Your task to perform on an android device: Open Chrome and go to the settings page Image 0: 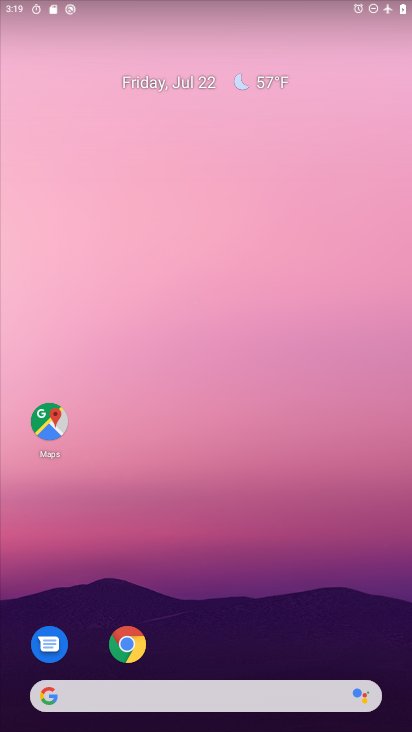
Step 0: click (135, 637)
Your task to perform on an android device: Open Chrome and go to the settings page Image 1: 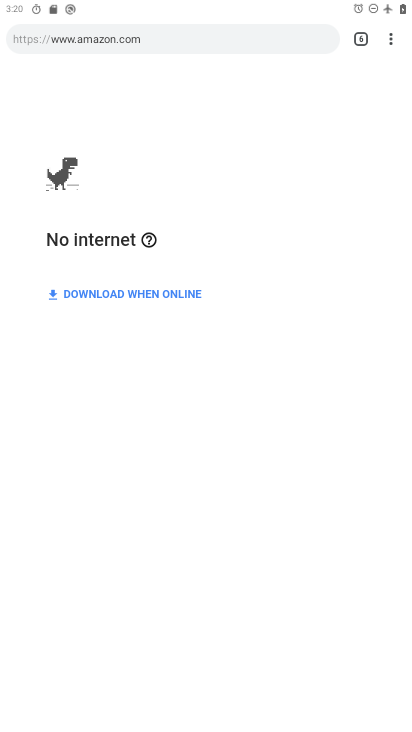
Step 1: click (386, 46)
Your task to perform on an android device: Open Chrome and go to the settings page Image 2: 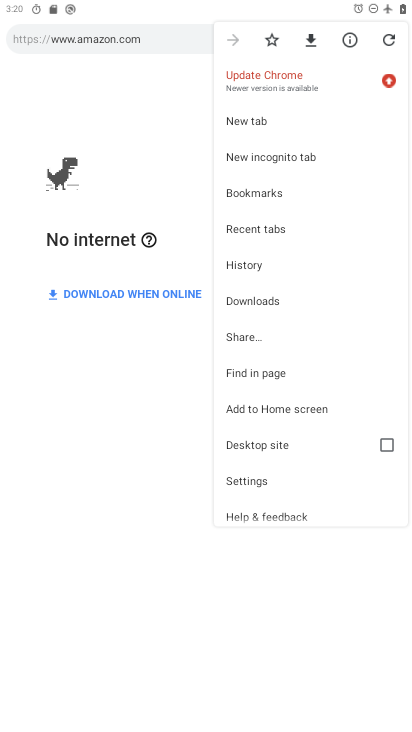
Step 2: click (275, 479)
Your task to perform on an android device: Open Chrome and go to the settings page Image 3: 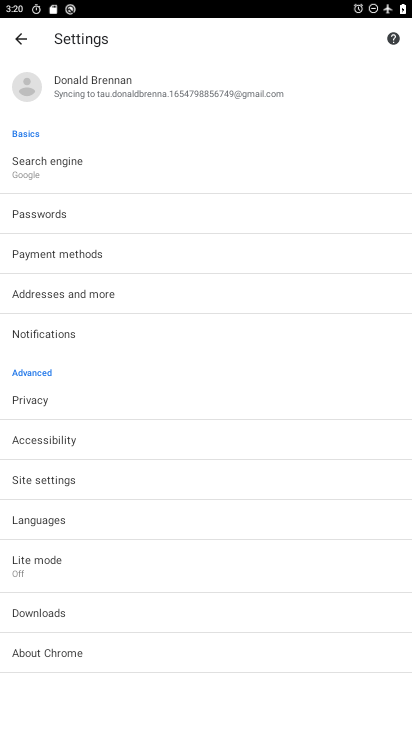
Step 3: task complete